Your task to perform on an android device: move an email to a new category in the gmail app Image 0: 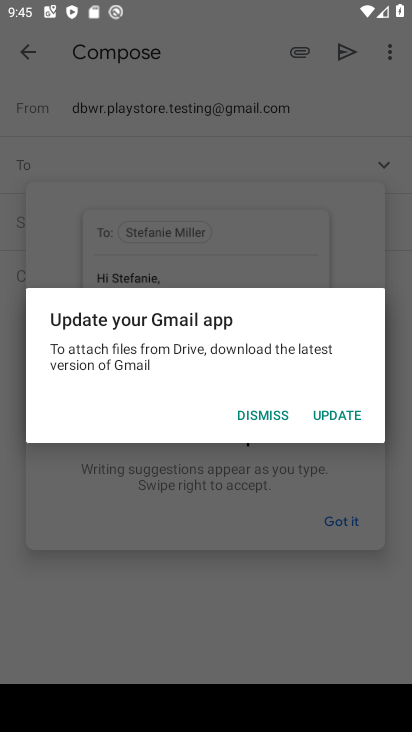
Step 0: press home button
Your task to perform on an android device: move an email to a new category in the gmail app Image 1: 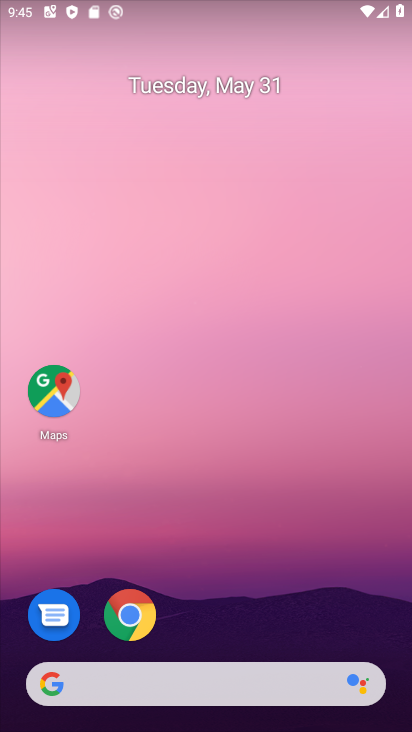
Step 1: drag from (357, 526) to (383, 152)
Your task to perform on an android device: move an email to a new category in the gmail app Image 2: 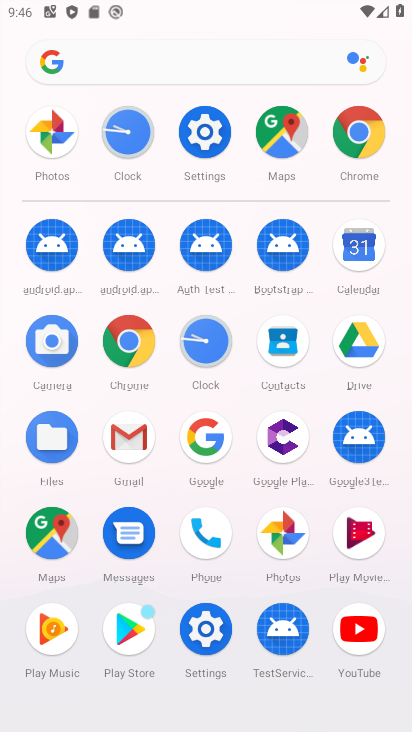
Step 2: click (117, 424)
Your task to perform on an android device: move an email to a new category in the gmail app Image 3: 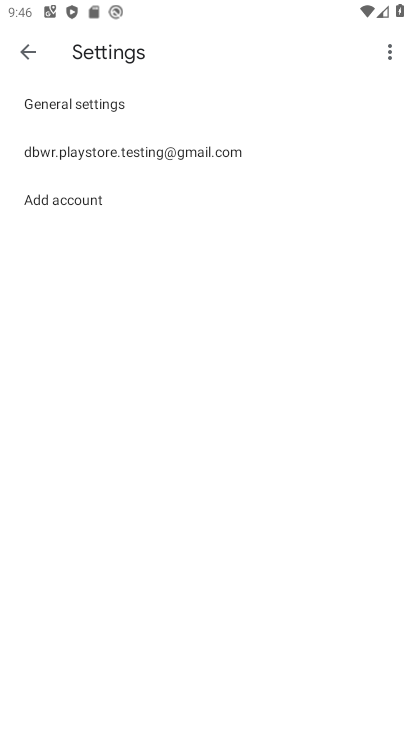
Step 3: click (36, 59)
Your task to perform on an android device: move an email to a new category in the gmail app Image 4: 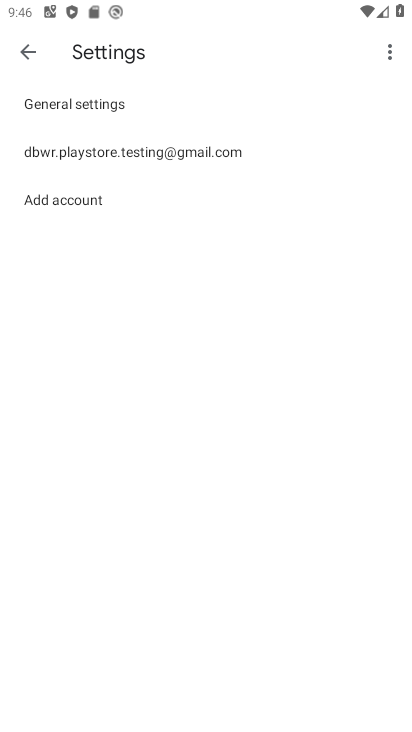
Step 4: click (36, 59)
Your task to perform on an android device: move an email to a new category in the gmail app Image 5: 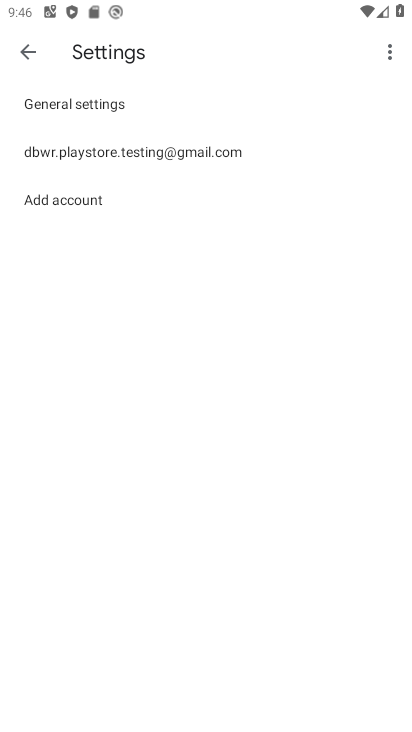
Step 5: click (36, 59)
Your task to perform on an android device: move an email to a new category in the gmail app Image 6: 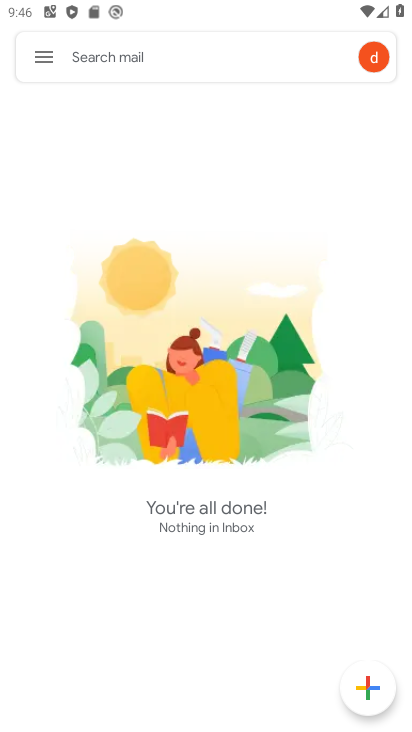
Step 6: task complete